Your task to perform on an android device: Open Chrome and go to the settings page Image 0: 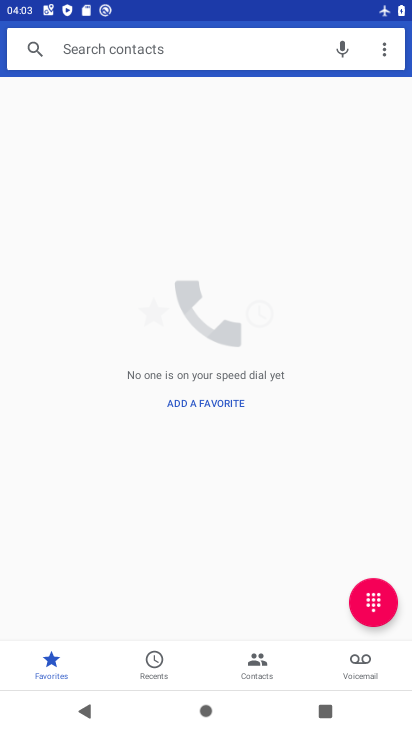
Step 0: press home button
Your task to perform on an android device: Open Chrome and go to the settings page Image 1: 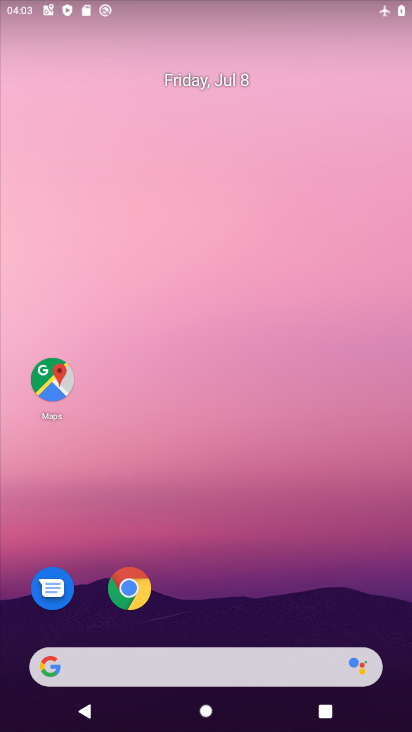
Step 1: drag from (227, 596) to (213, 93)
Your task to perform on an android device: Open Chrome and go to the settings page Image 2: 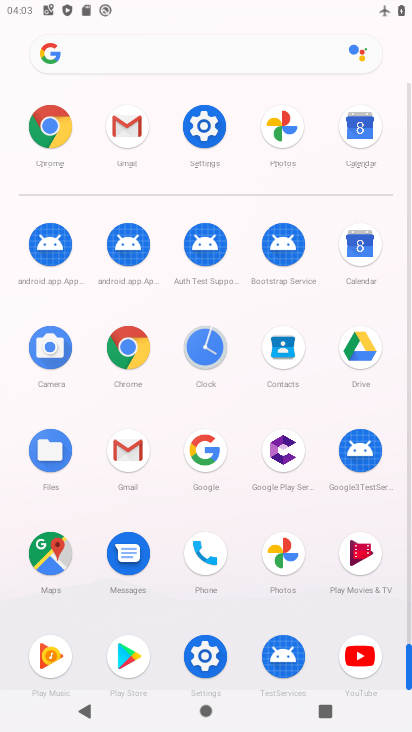
Step 2: click (206, 126)
Your task to perform on an android device: Open Chrome and go to the settings page Image 3: 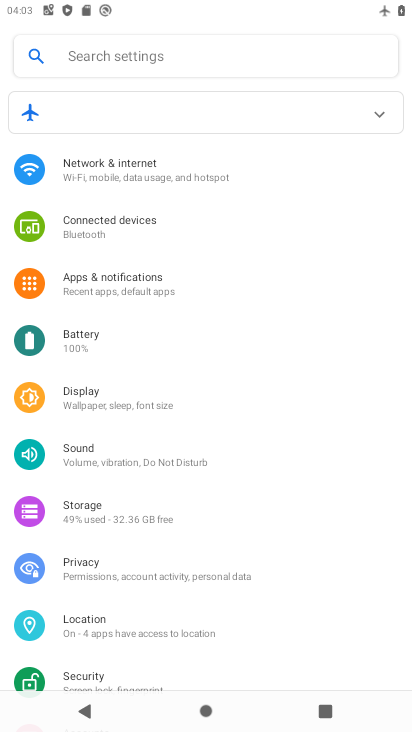
Step 3: click (381, 109)
Your task to perform on an android device: Open Chrome and go to the settings page Image 4: 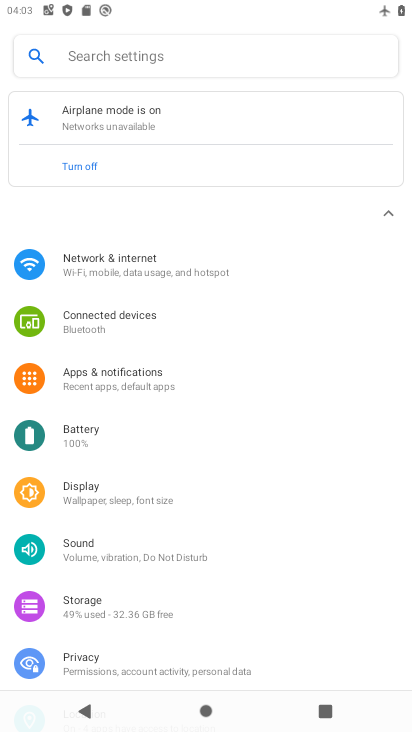
Step 4: click (88, 175)
Your task to perform on an android device: Open Chrome and go to the settings page Image 5: 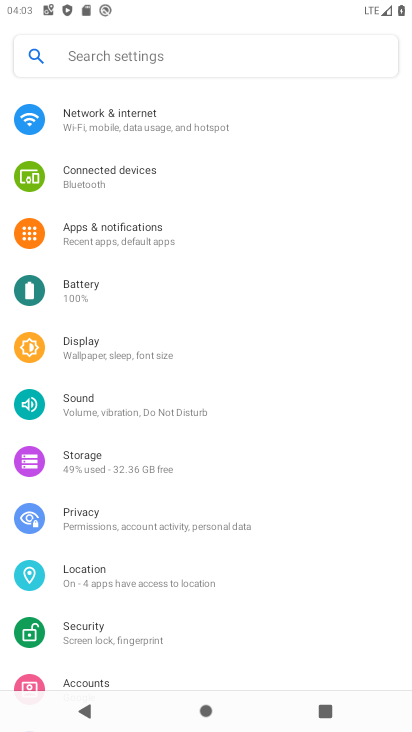
Step 5: press back button
Your task to perform on an android device: Open Chrome and go to the settings page Image 6: 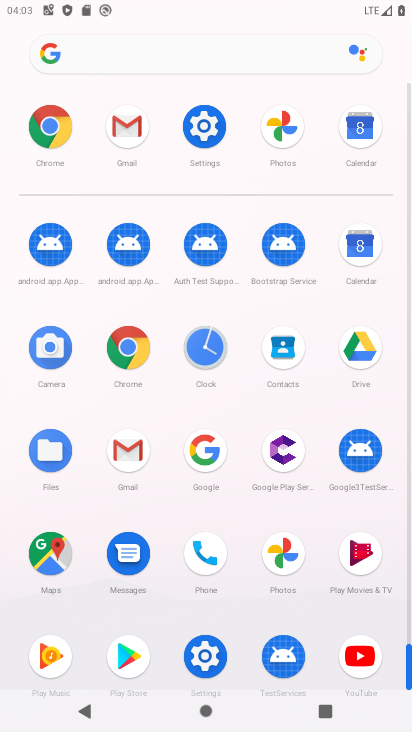
Step 6: click (54, 132)
Your task to perform on an android device: Open Chrome and go to the settings page Image 7: 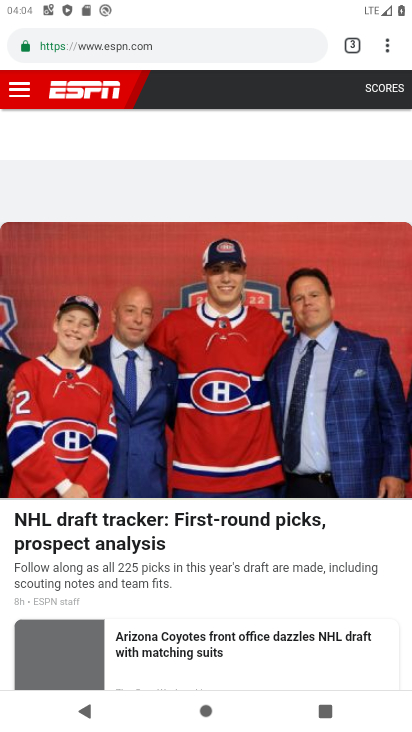
Step 7: click (385, 44)
Your task to perform on an android device: Open Chrome and go to the settings page Image 8: 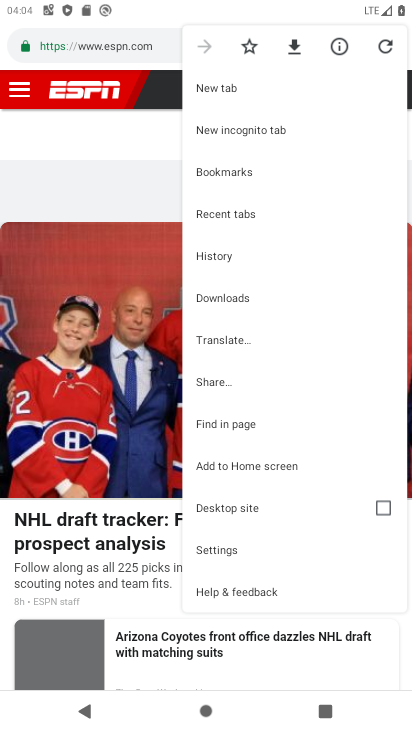
Step 8: click (230, 554)
Your task to perform on an android device: Open Chrome and go to the settings page Image 9: 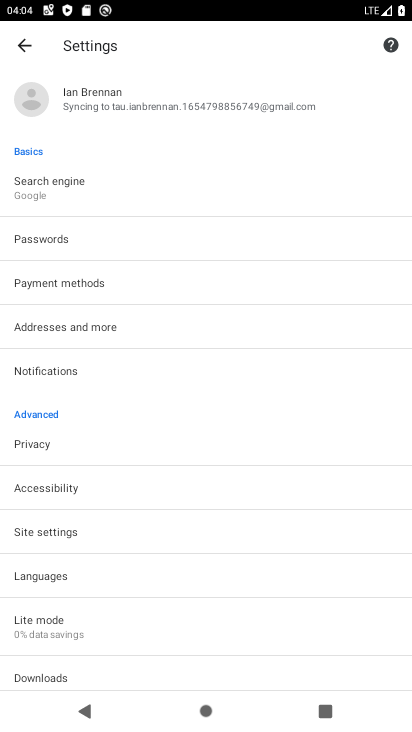
Step 9: task complete